Your task to perform on an android device: open app "Lyft - Rideshare, Bikes, Scooters & Transit" Image 0: 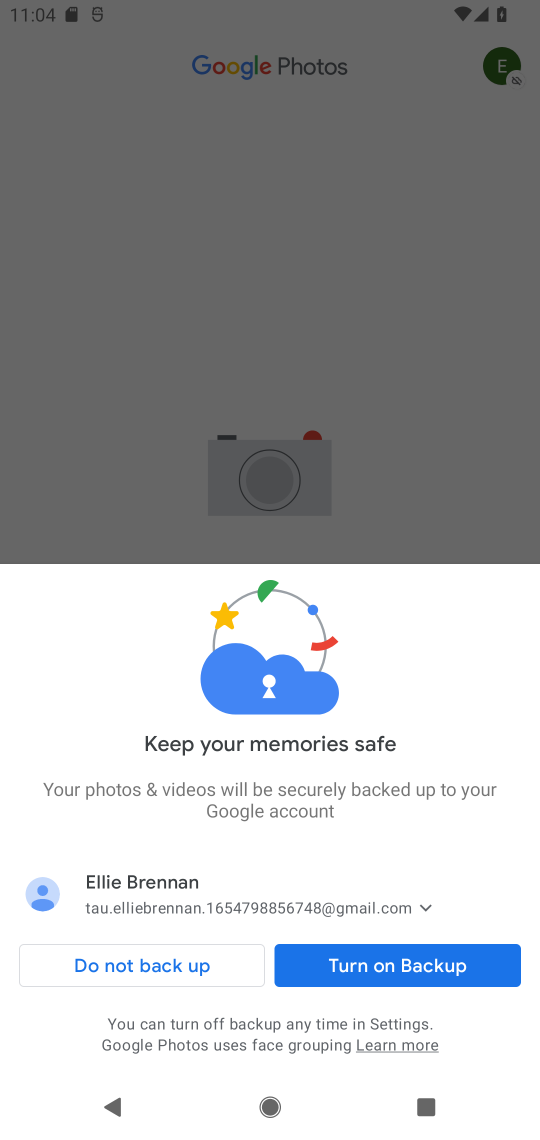
Step 0: press home button
Your task to perform on an android device: open app "Lyft - Rideshare, Bikes, Scooters & Transit" Image 1: 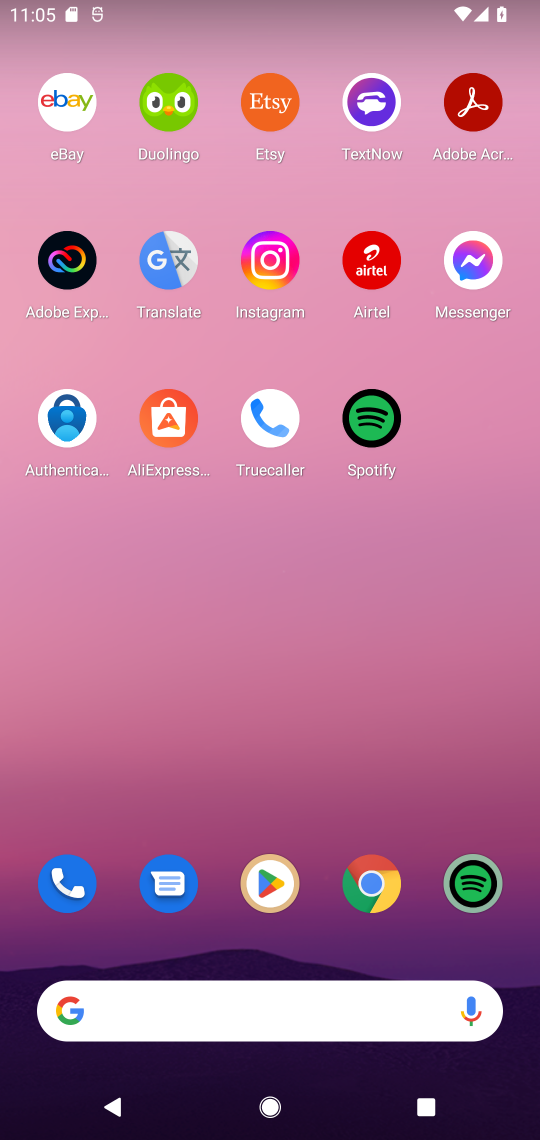
Step 1: click (278, 881)
Your task to perform on an android device: open app "Lyft - Rideshare, Bikes, Scooters & Transit" Image 2: 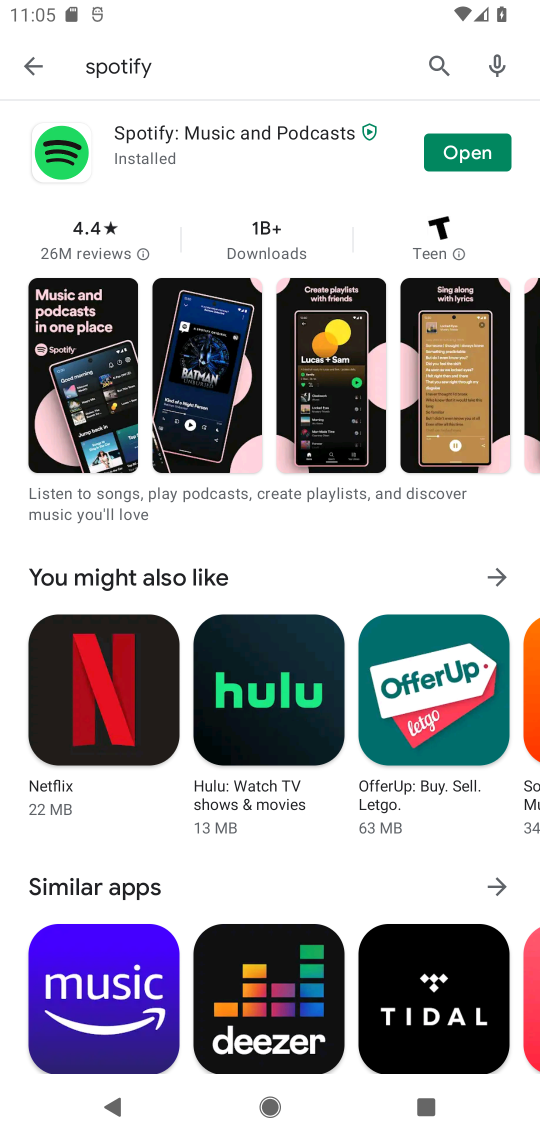
Step 2: click (439, 52)
Your task to perform on an android device: open app "Lyft - Rideshare, Bikes, Scooters & Transit" Image 3: 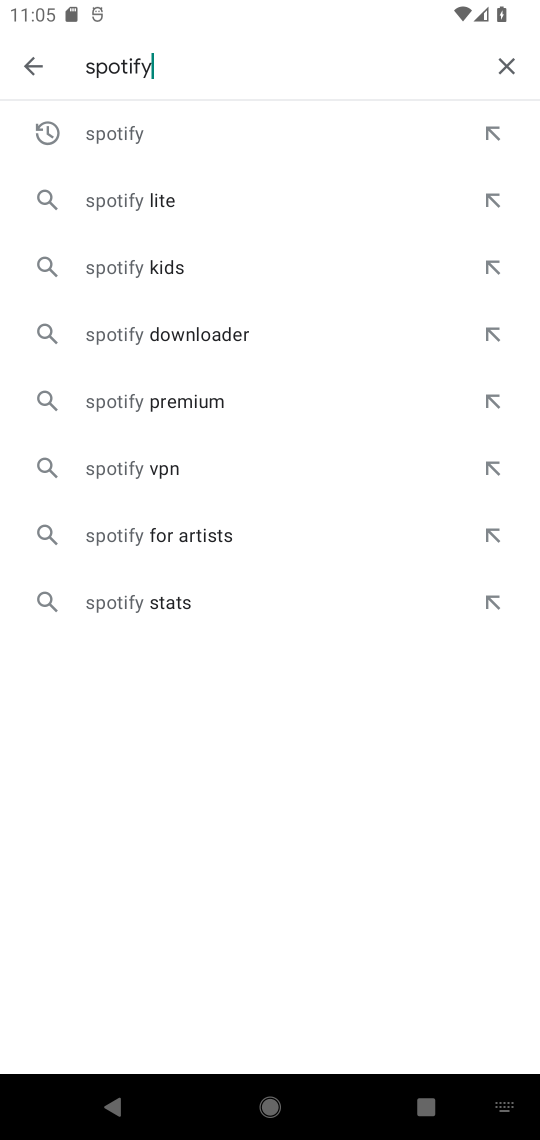
Step 3: click (504, 59)
Your task to perform on an android device: open app "Lyft - Rideshare, Bikes, Scooters & Transit" Image 4: 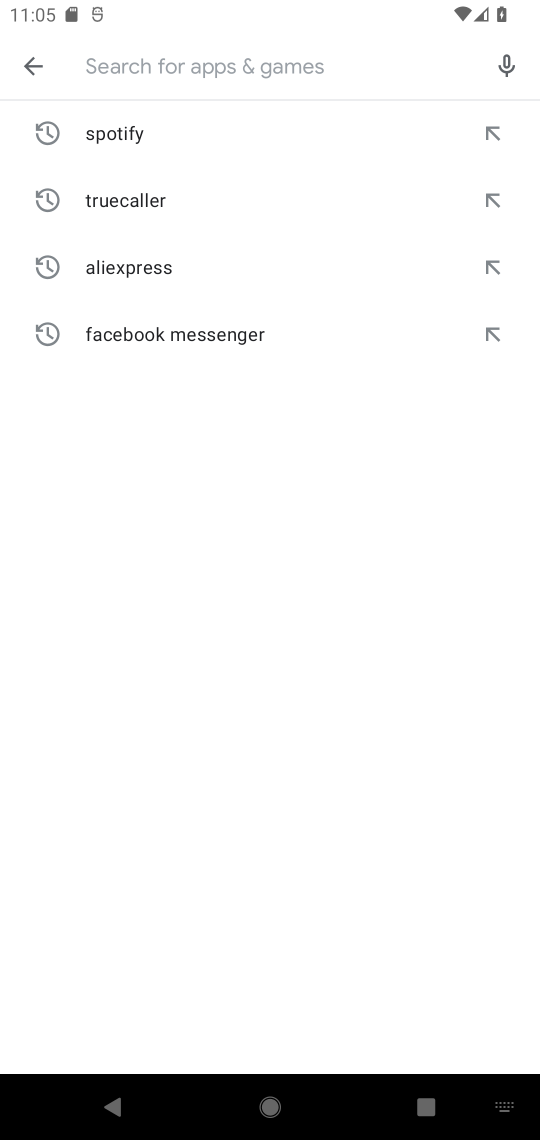
Step 4: type "Lyft - Rideshare, Bikes, Scooters & Transit"
Your task to perform on an android device: open app "Lyft - Rideshare, Bikes, Scooters & Transit" Image 5: 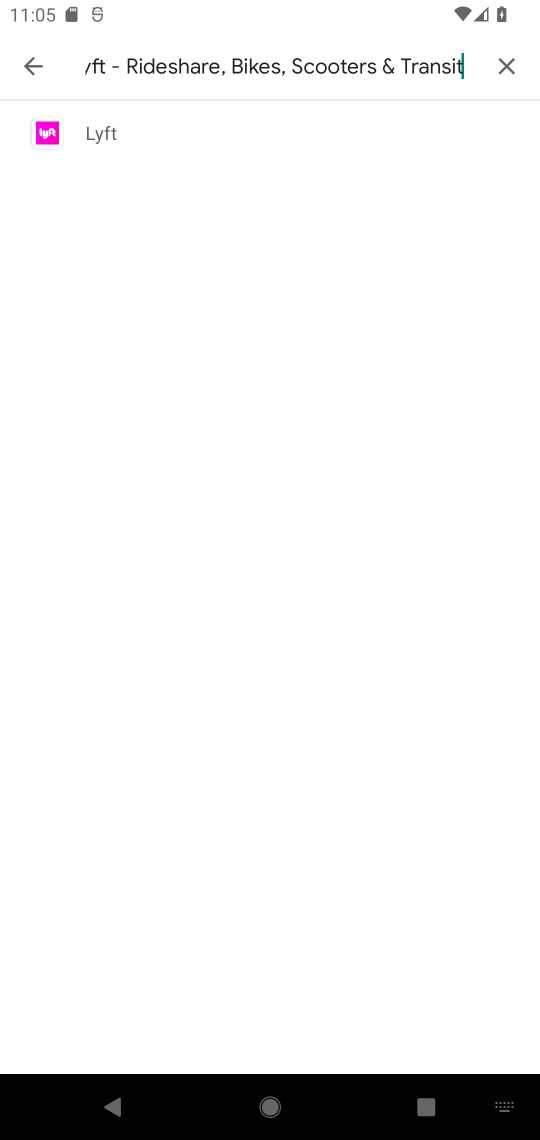
Step 5: click (98, 130)
Your task to perform on an android device: open app "Lyft - Rideshare, Bikes, Scooters & Transit" Image 6: 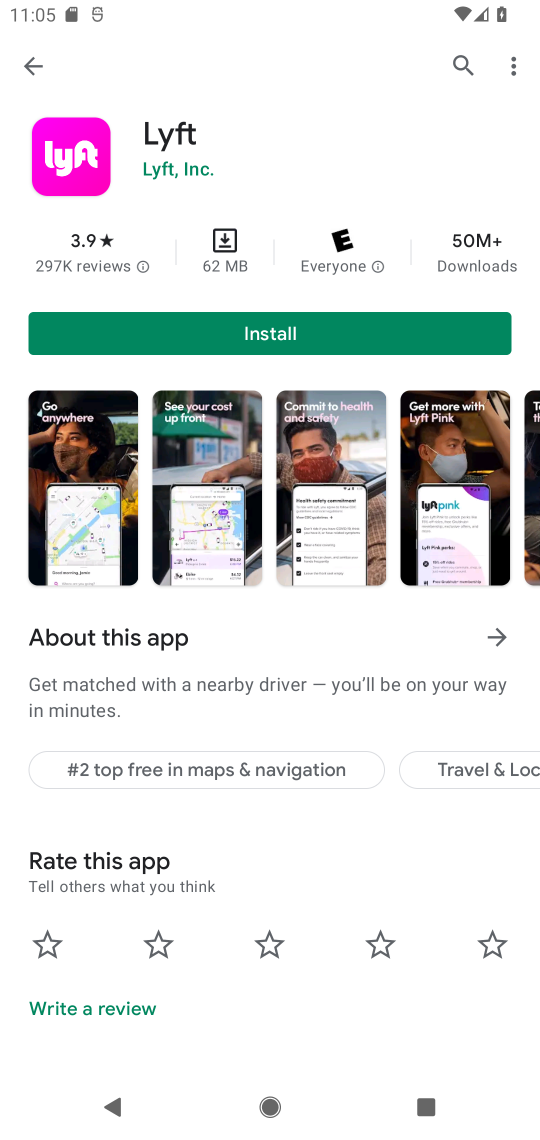
Step 6: click (267, 339)
Your task to perform on an android device: open app "Lyft - Rideshare, Bikes, Scooters & Transit" Image 7: 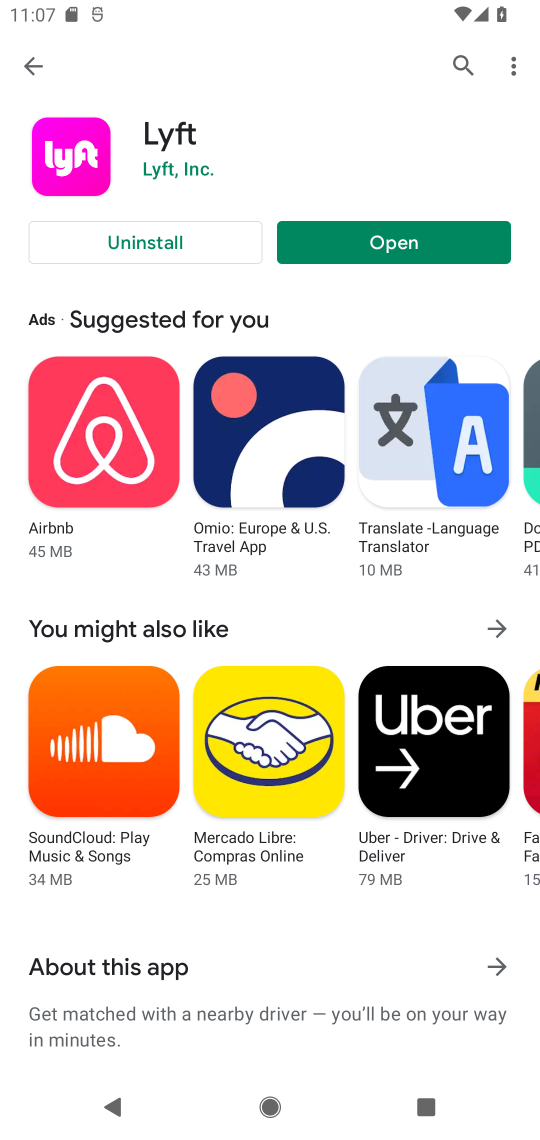
Step 7: click (360, 247)
Your task to perform on an android device: open app "Lyft - Rideshare, Bikes, Scooters & Transit" Image 8: 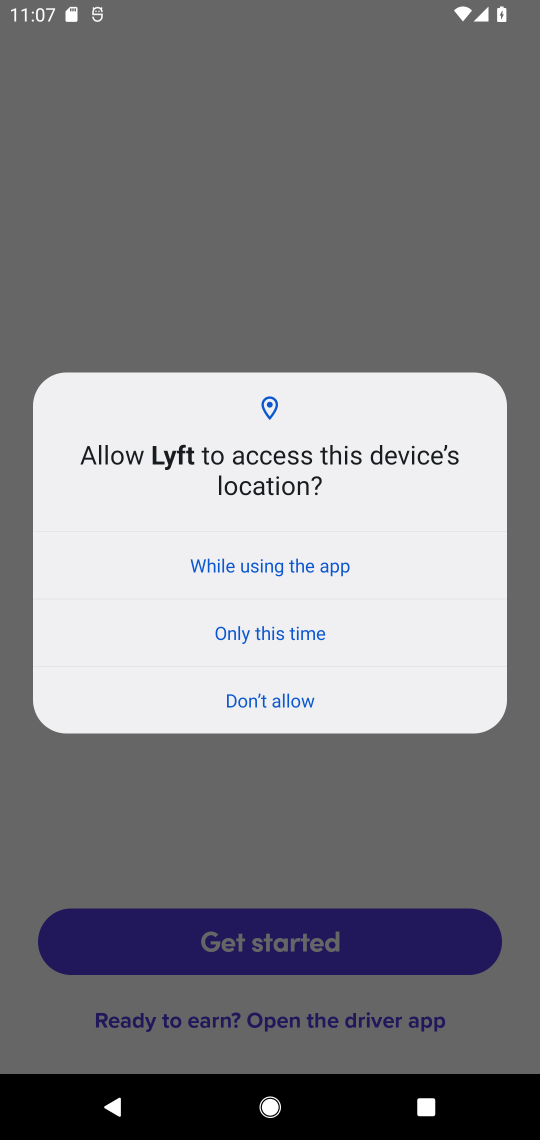
Step 8: click (281, 696)
Your task to perform on an android device: open app "Lyft - Rideshare, Bikes, Scooters & Transit" Image 9: 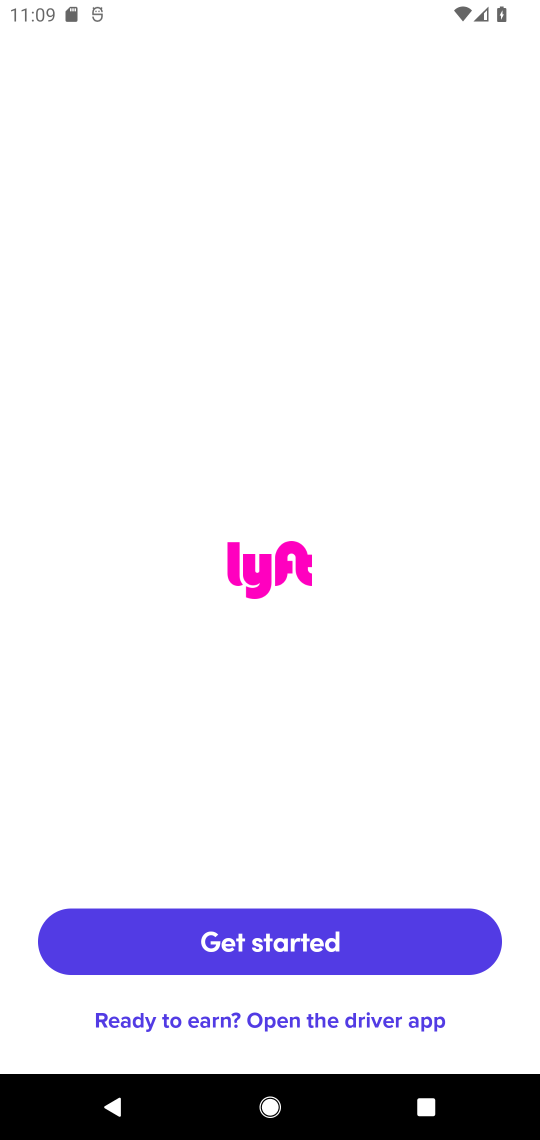
Step 9: task complete